Your task to perform on an android device: Open Maps and search for coffee Image 0: 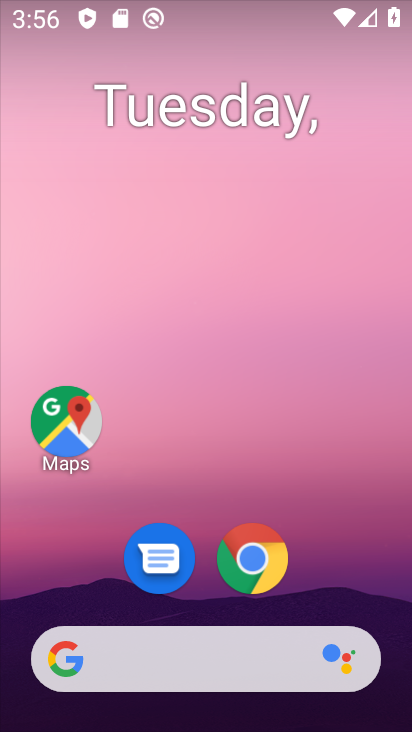
Step 0: click (67, 428)
Your task to perform on an android device: Open Maps and search for coffee Image 1: 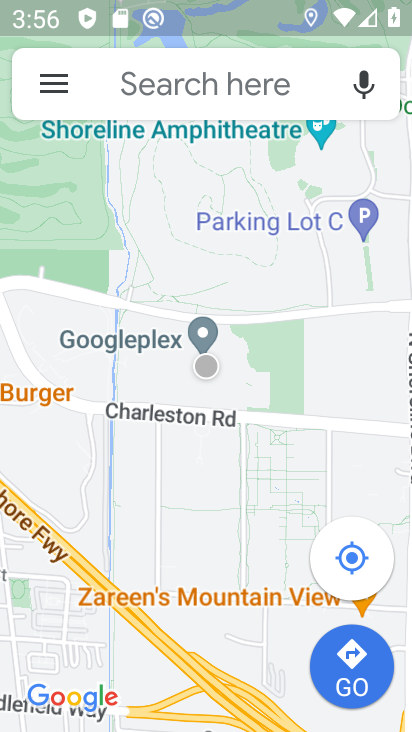
Step 1: click (249, 107)
Your task to perform on an android device: Open Maps and search for coffee Image 2: 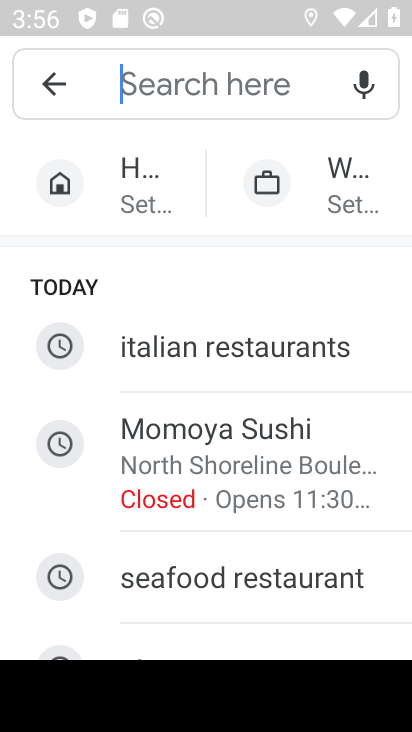
Step 2: type "Coffee "
Your task to perform on an android device: Open Maps and search for coffee Image 3: 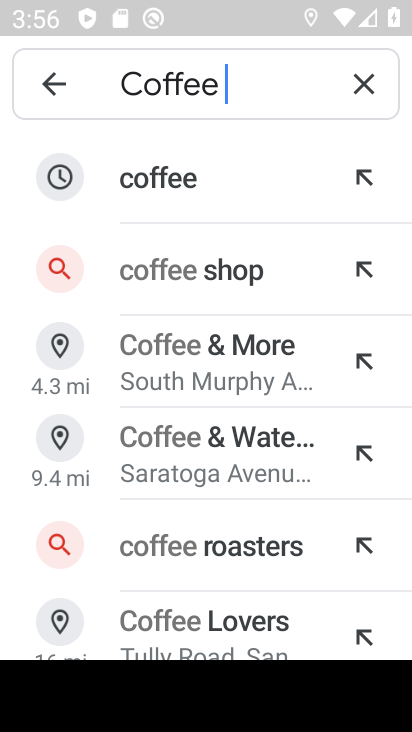
Step 3: click (238, 198)
Your task to perform on an android device: Open Maps and search for coffee Image 4: 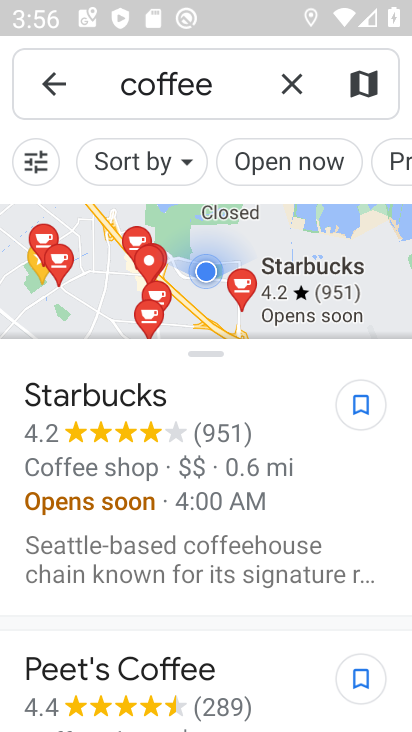
Step 4: task complete